Your task to perform on an android device: set the stopwatch Image 0: 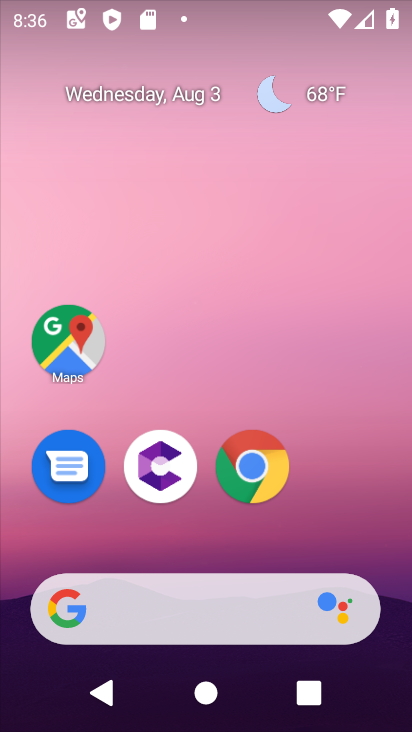
Step 0: drag from (343, 507) to (355, 55)
Your task to perform on an android device: set the stopwatch Image 1: 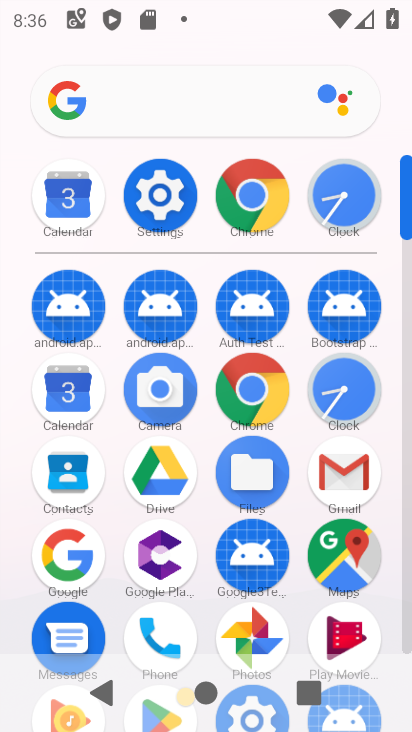
Step 1: click (340, 386)
Your task to perform on an android device: set the stopwatch Image 2: 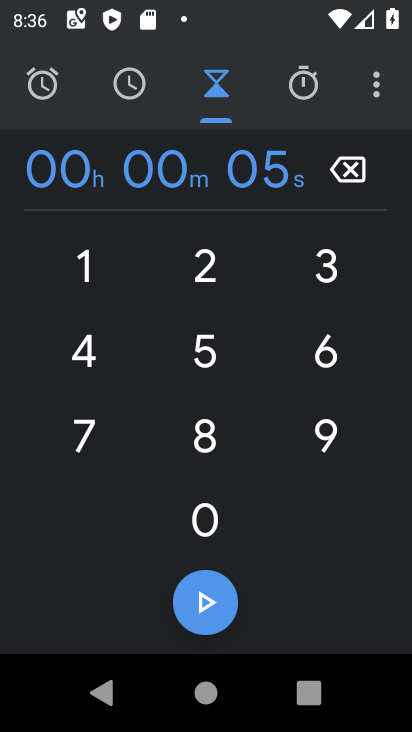
Step 2: click (312, 87)
Your task to perform on an android device: set the stopwatch Image 3: 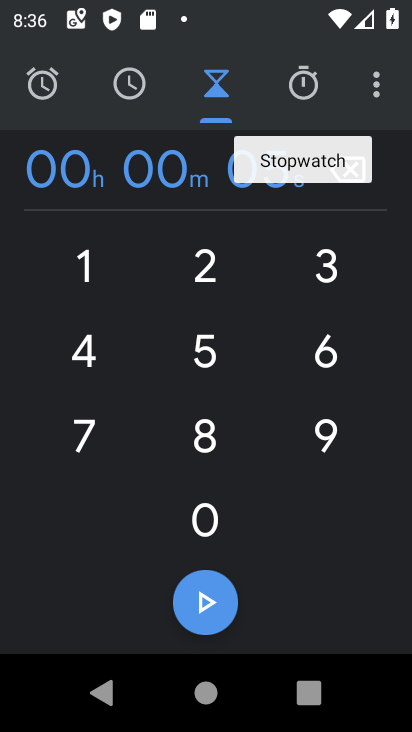
Step 3: click (298, 85)
Your task to perform on an android device: set the stopwatch Image 4: 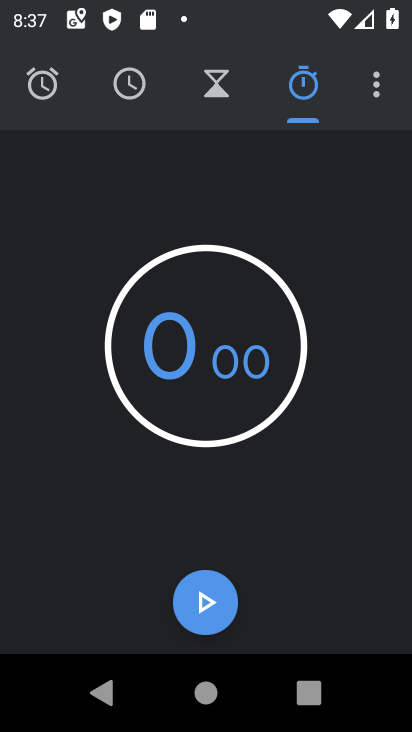
Step 4: click (200, 618)
Your task to perform on an android device: set the stopwatch Image 5: 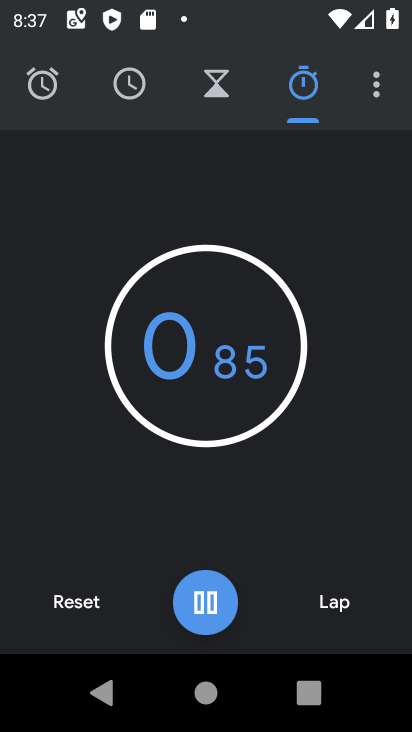
Step 5: click (200, 618)
Your task to perform on an android device: set the stopwatch Image 6: 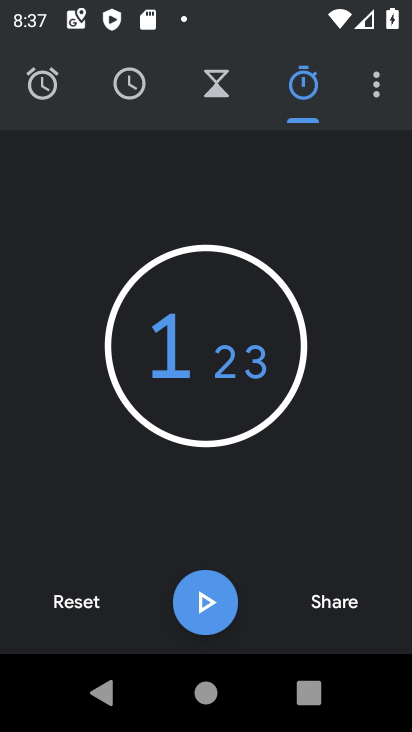
Step 6: task complete